Your task to perform on an android device: turn off notifications in google photos Image 0: 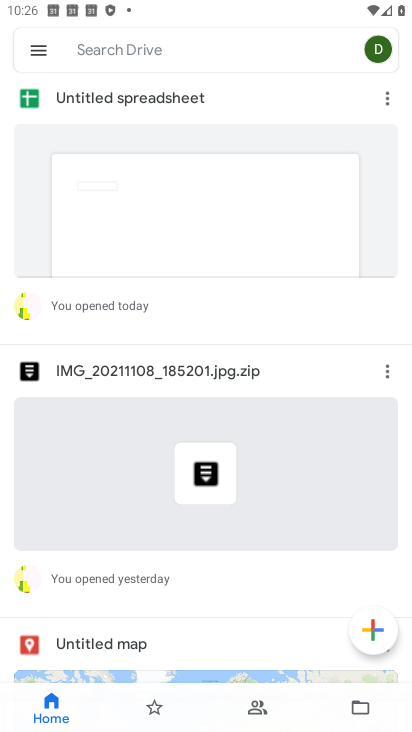
Step 0: press home button
Your task to perform on an android device: turn off notifications in google photos Image 1: 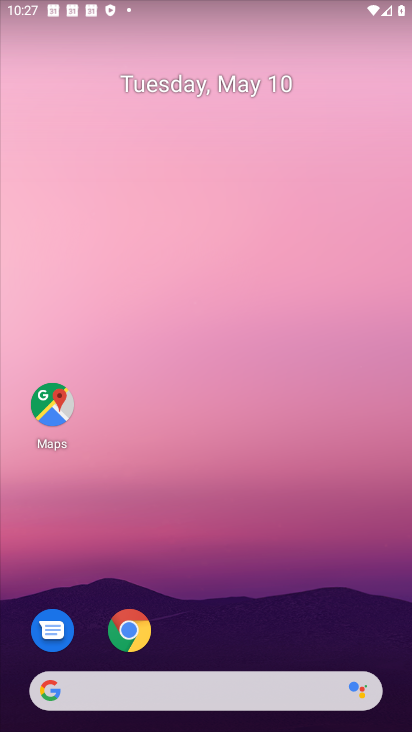
Step 1: drag from (235, 722) to (279, 180)
Your task to perform on an android device: turn off notifications in google photos Image 2: 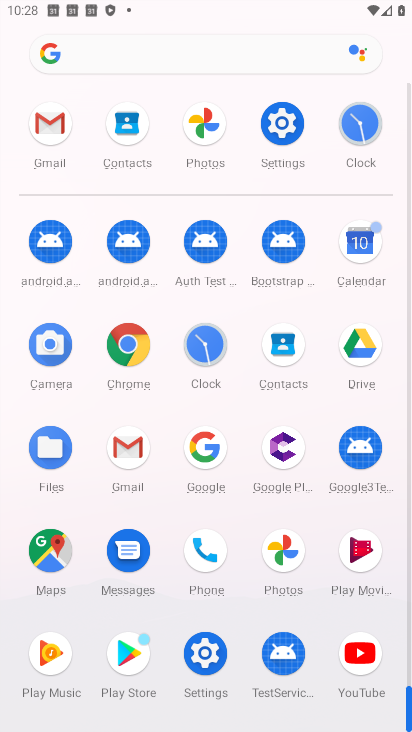
Step 2: click (279, 555)
Your task to perform on an android device: turn off notifications in google photos Image 3: 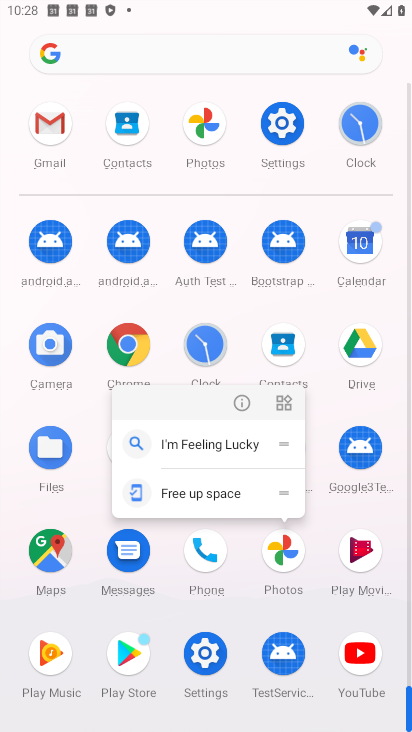
Step 3: click (243, 395)
Your task to perform on an android device: turn off notifications in google photos Image 4: 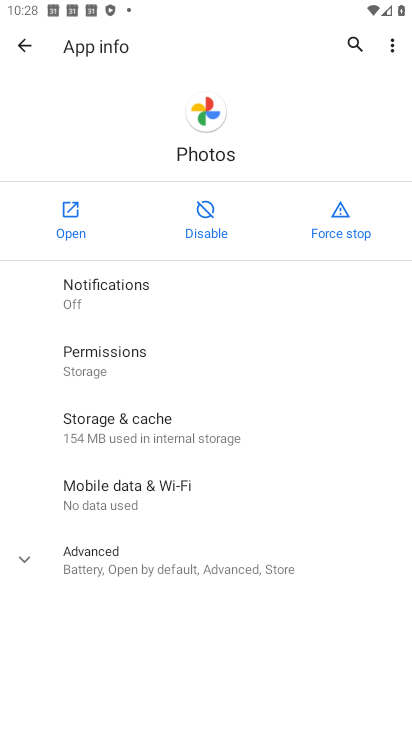
Step 4: click (184, 309)
Your task to perform on an android device: turn off notifications in google photos Image 5: 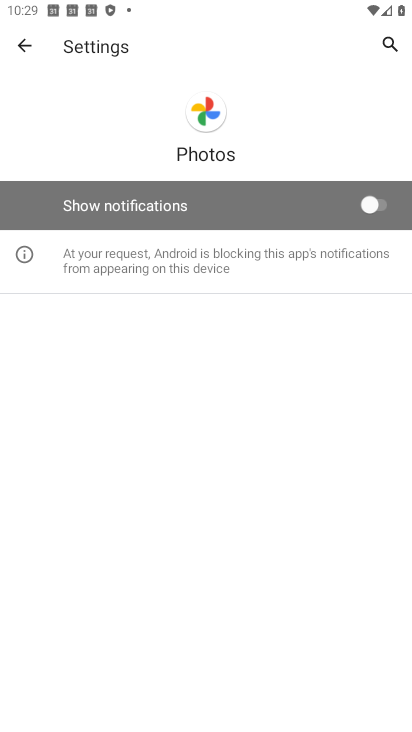
Step 5: task complete